Your task to perform on an android device: Turn off the flashlight Image 0: 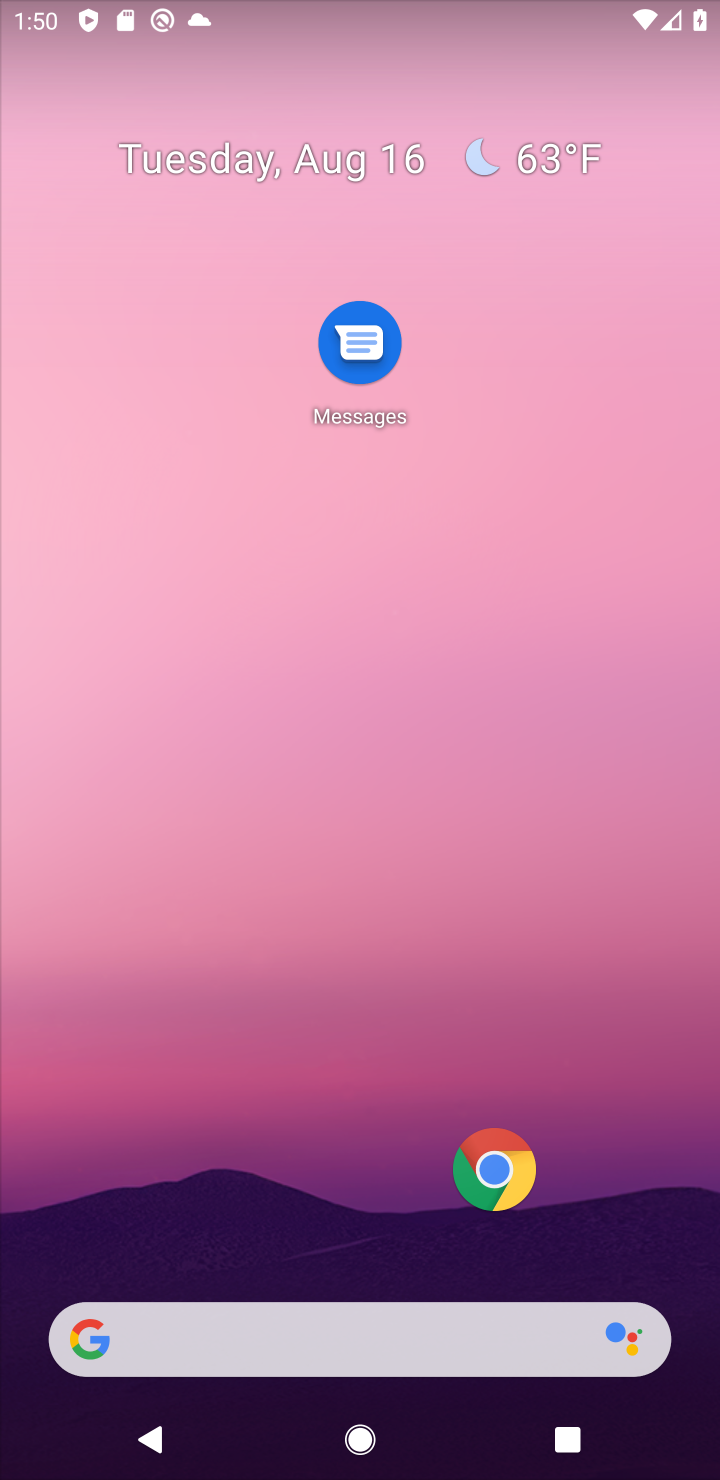
Step 0: drag from (44, 1416) to (389, 820)
Your task to perform on an android device: Turn off the flashlight Image 1: 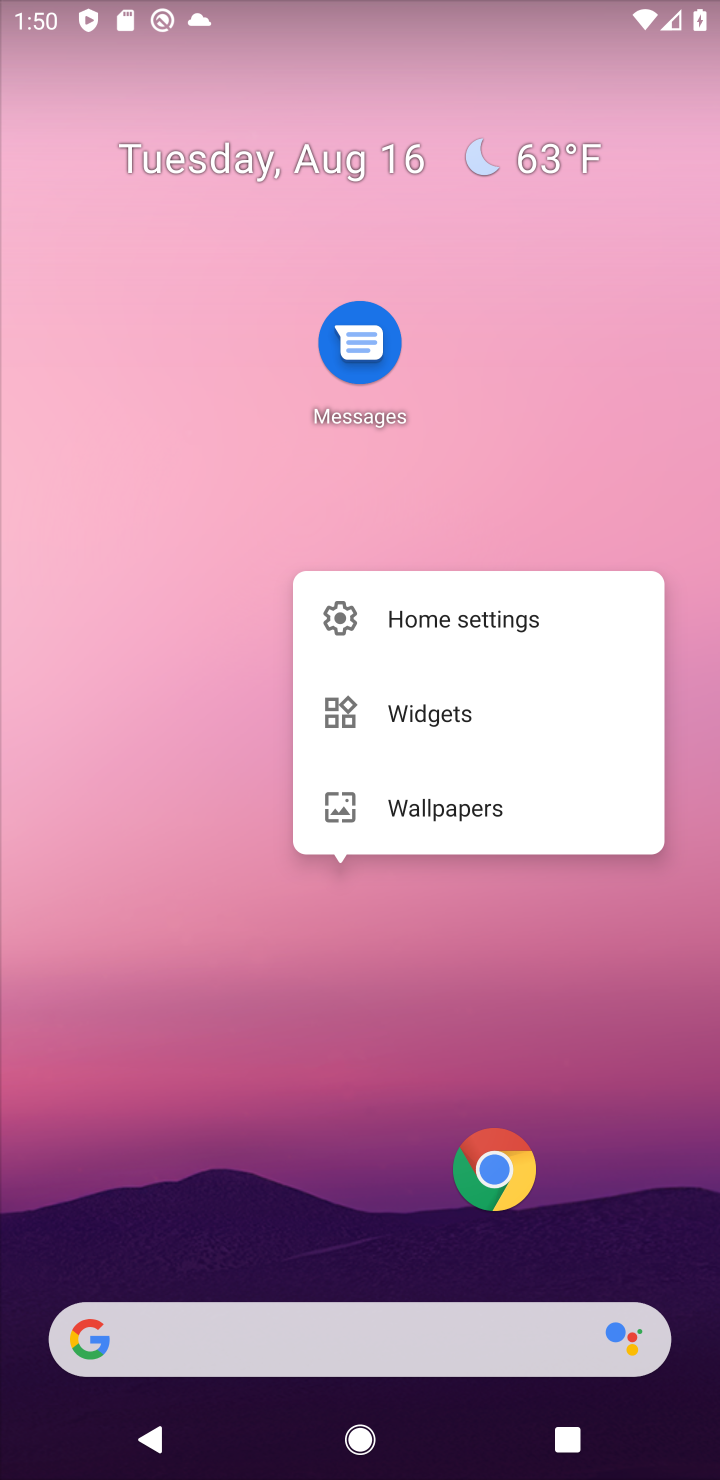
Step 1: task complete